Your task to perform on an android device: turn on airplane mode Image 0: 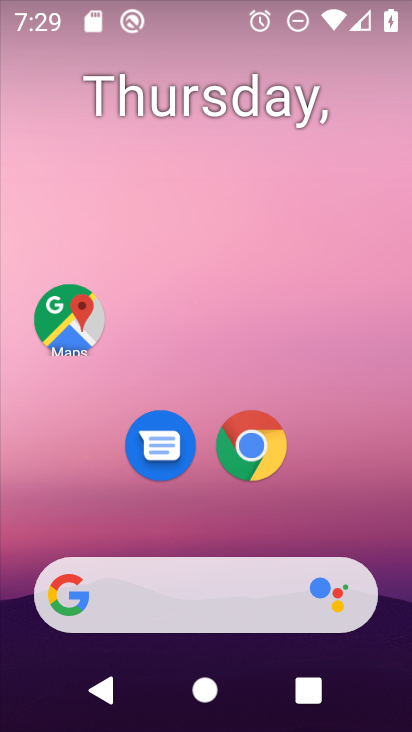
Step 0: drag from (335, 465) to (276, 12)
Your task to perform on an android device: turn on airplane mode Image 1: 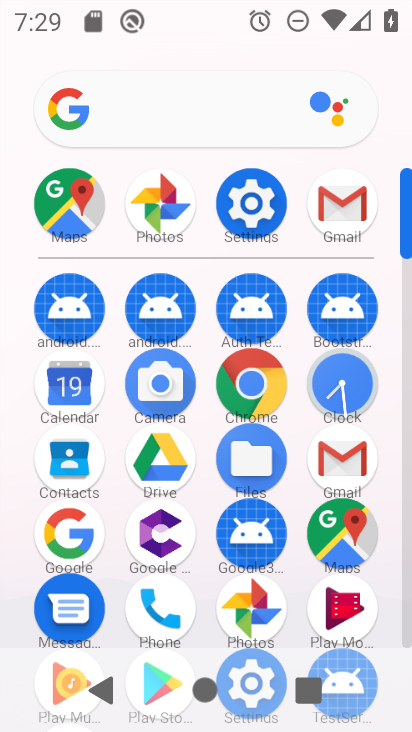
Step 1: click (241, 209)
Your task to perform on an android device: turn on airplane mode Image 2: 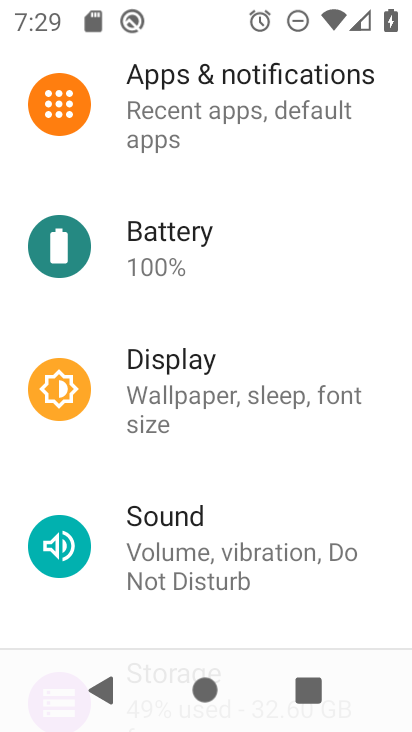
Step 2: drag from (238, 158) to (227, 716)
Your task to perform on an android device: turn on airplane mode Image 3: 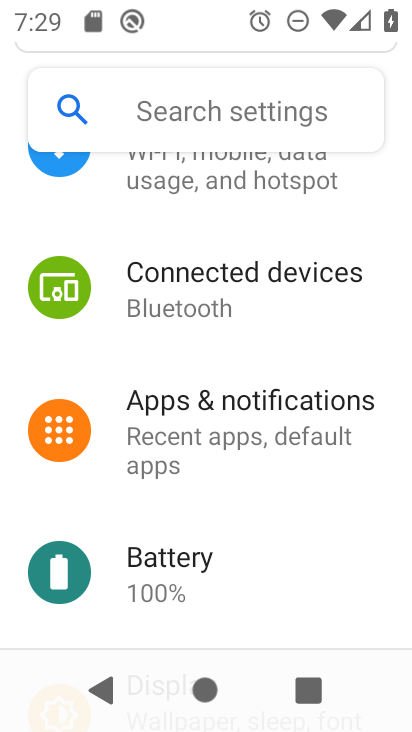
Step 3: drag from (224, 235) to (223, 522)
Your task to perform on an android device: turn on airplane mode Image 4: 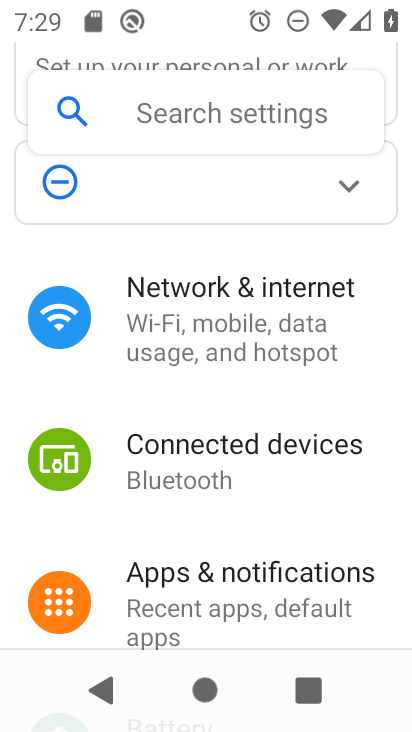
Step 4: click (192, 305)
Your task to perform on an android device: turn on airplane mode Image 5: 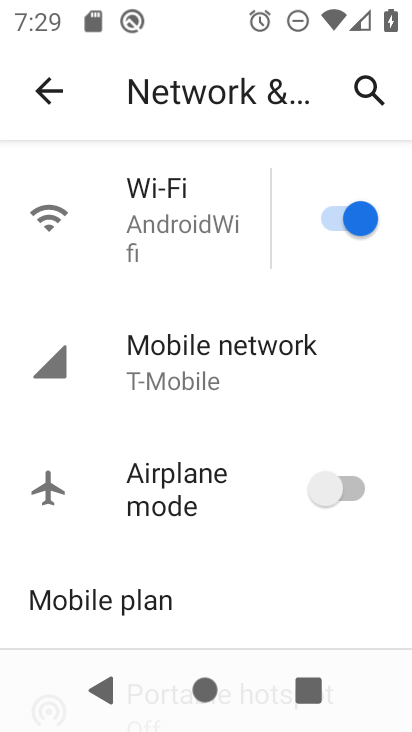
Step 5: click (336, 484)
Your task to perform on an android device: turn on airplane mode Image 6: 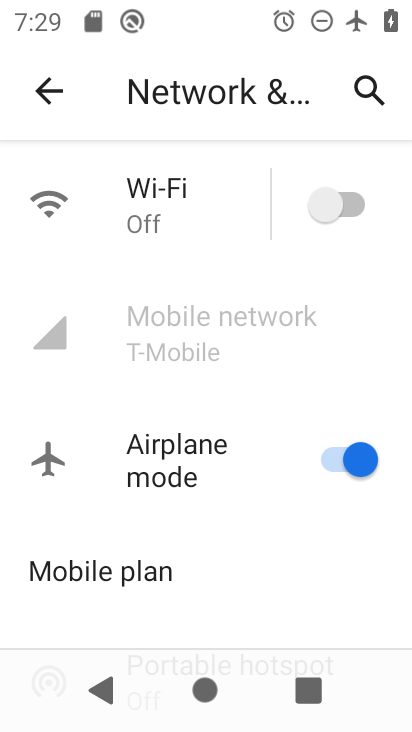
Step 6: task complete